Your task to perform on an android device: What's the weather? Image 0: 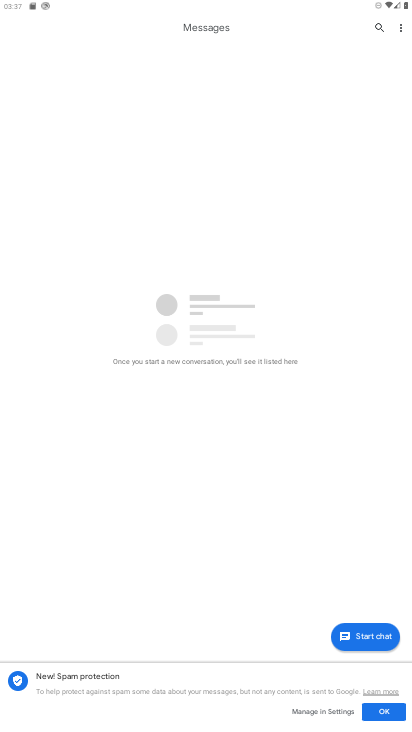
Step 0: press home button
Your task to perform on an android device: What's the weather? Image 1: 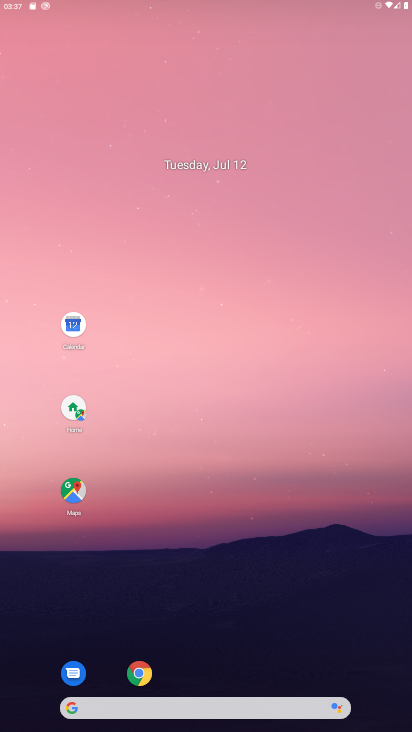
Step 1: drag from (191, 647) to (160, 361)
Your task to perform on an android device: What's the weather? Image 2: 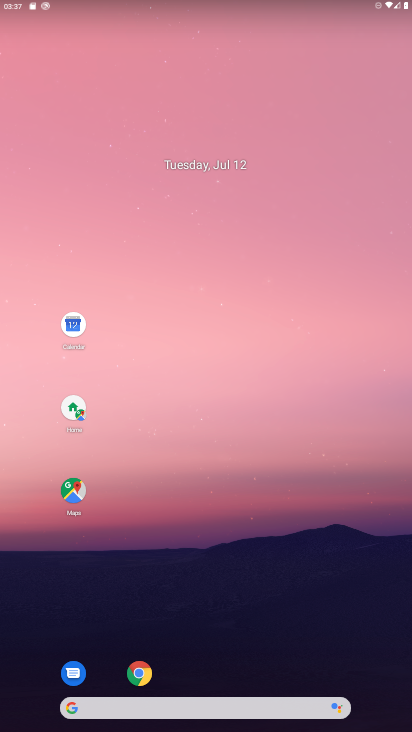
Step 2: drag from (202, 645) to (254, 206)
Your task to perform on an android device: What's the weather? Image 3: 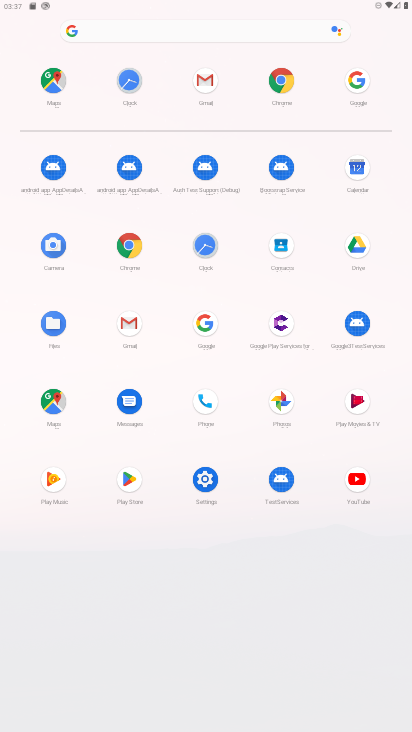
Step 3: click (281, 68)
Your task to perform on an android device: What's the weather? Image 4: 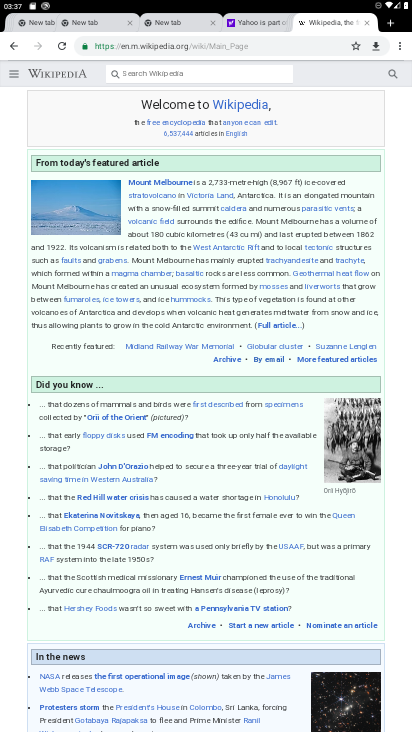
Step 4: click (399, 47)
Your task to perform on an android device: What's the weather? Image 5: 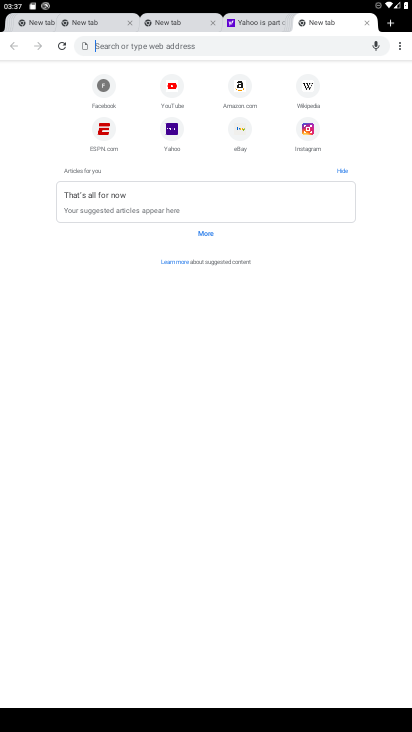
Step 5: click (164, 40)
Your task to perform on an android device: What's the weather? Image 6: 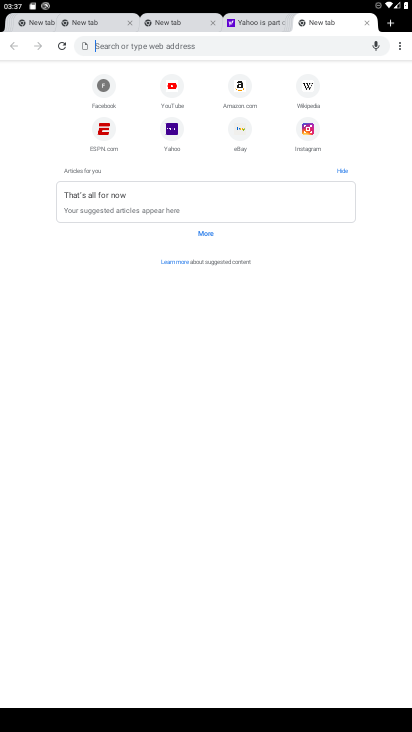
Step 6: type "What's the weather  "
Your task to perform on an android device: What's the weather? Image 7: 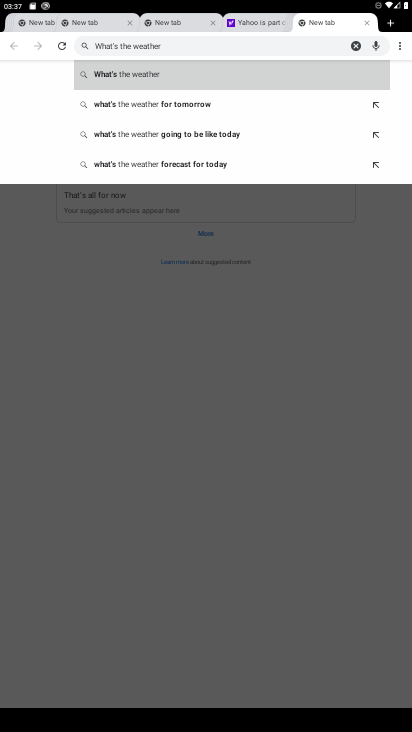
Step 7: click (176, 74)
Your task to perform on an android device: What's the weather? Image 8: 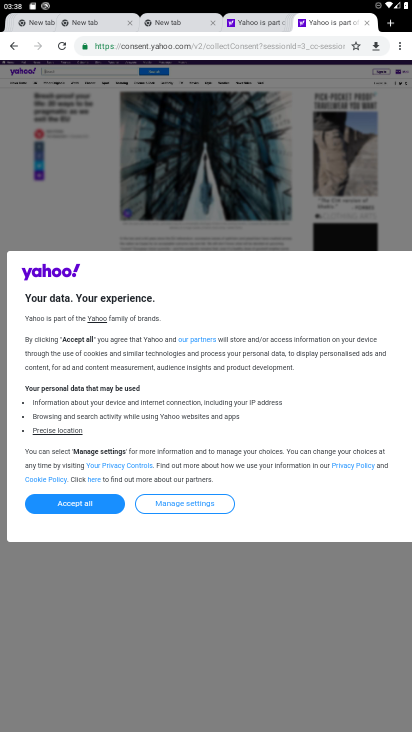
Step 8: task complete